Your task to perform on an android device: Open ESPN.com Image 0: 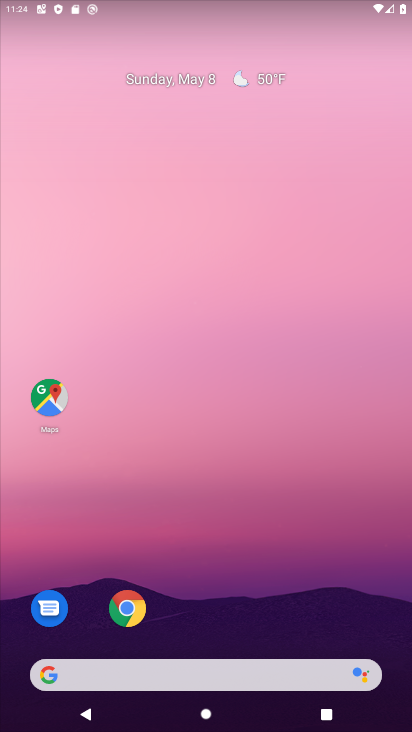
Step 0: drag from (289, 471) to (329, 14)
Your task to perform on an android device: Open ESPN.com Image 1: 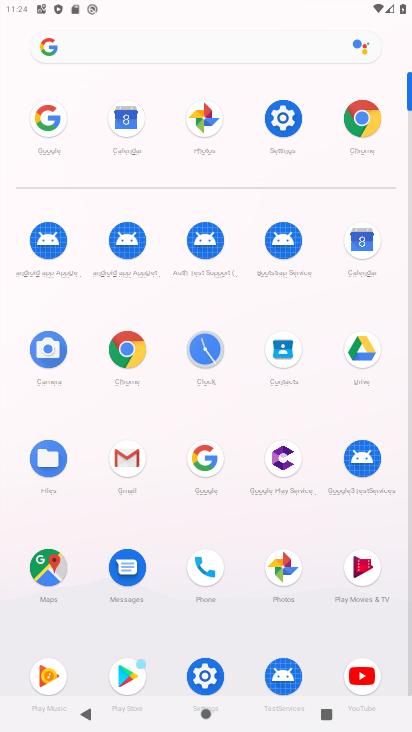
Step 1: click (362, 114)
Your task to perform on an android device: Open ESPN.com Image 2: 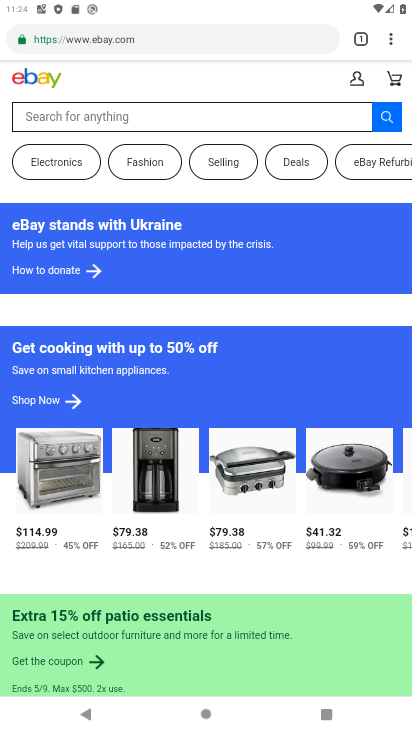
Step 2: click (146, 40)
Your task to perform on an android device: Open ESPN.com Image 3: 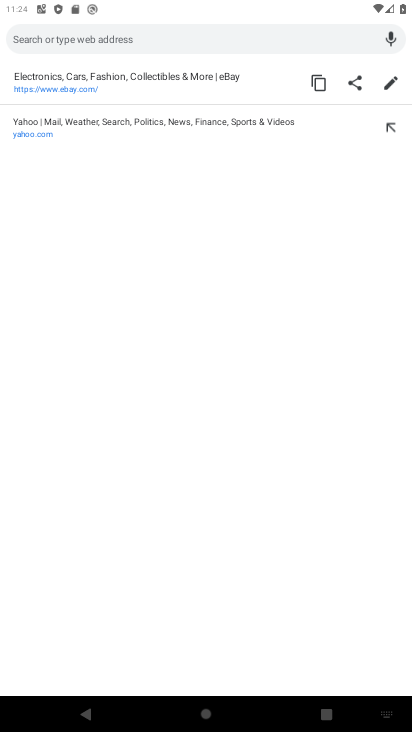
Step 3: type "espn"
Your task to perform on an android device: Open ESPN.com Image 4: 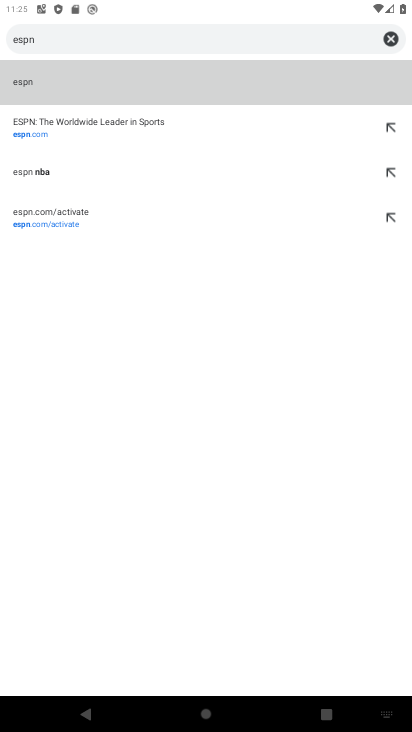
Step 4: click (43, 81)
Your task to perform on an android device: Open ESPN.com Image 5: 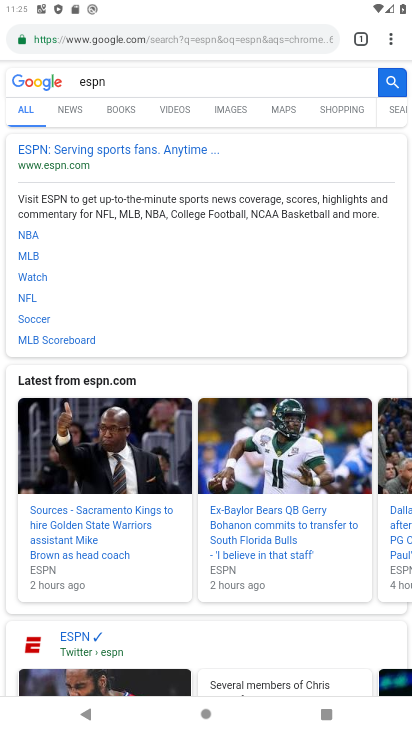
Step 5: task complete